Your task to perform on an android device: Open Maps and search for coffee Image 0: 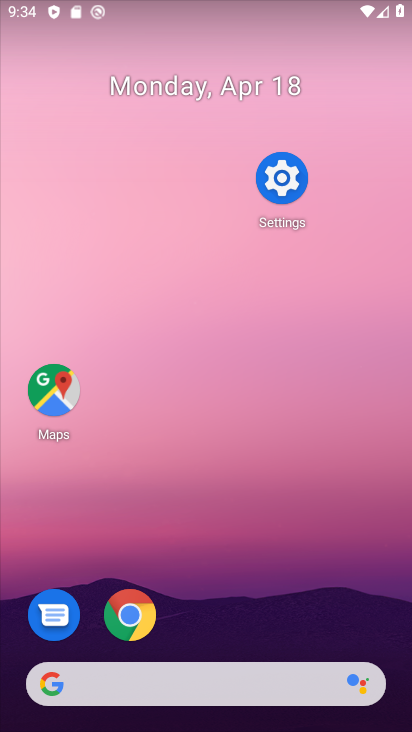
Step 0: click (57, 390)
Your task to perform on an android device: Open Maps and search for coffee Image 1: 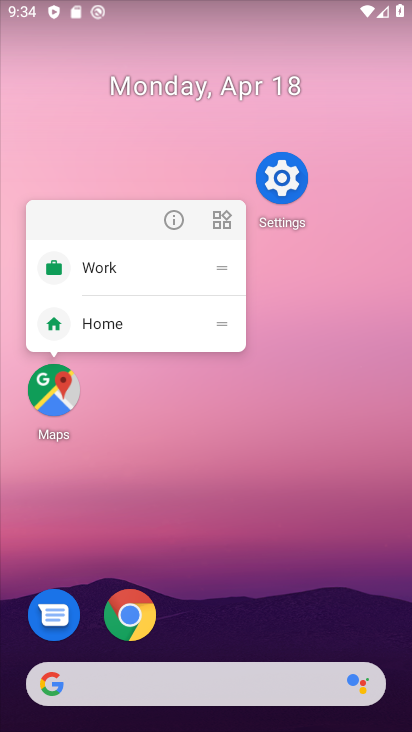
Step 1: click (57, 390)
Your task to perform on an android device: Open Maps and search for coffee Image 2: 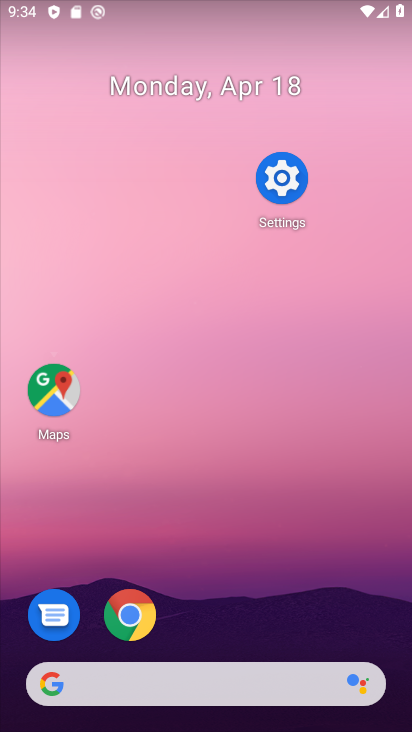
Step 2: click (57, 390)
Your task to perform on an android device: Open Maps and search for coffee Image 3: 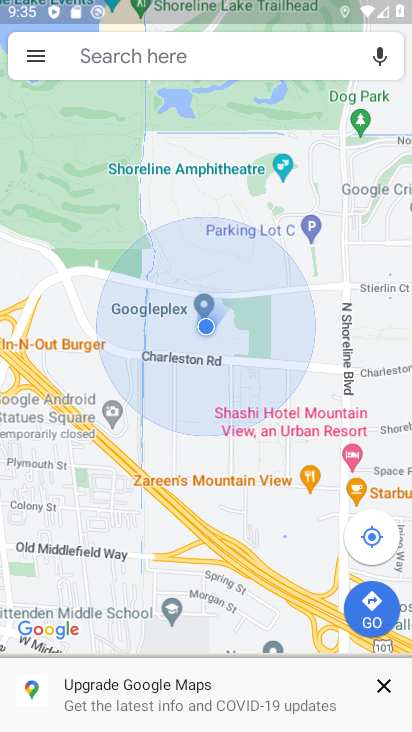
Step 3: click (84, 50)
Your task to perform on an android device: Open Maps and search for coffee Image 4: 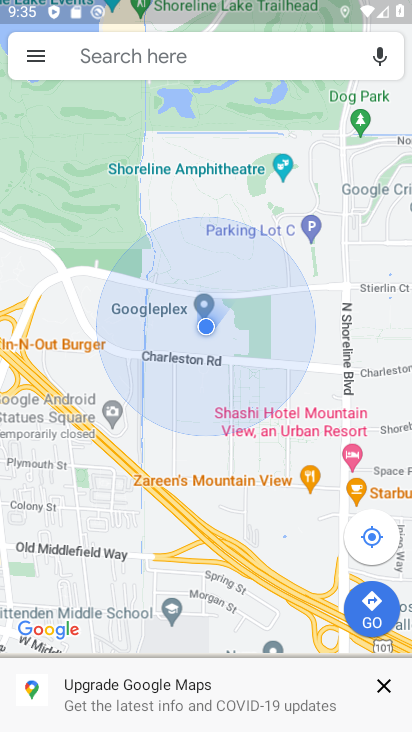
Step 4: click (90, 54)
Your task to perform on an android device: Open Maps and search for coffee Image 5: 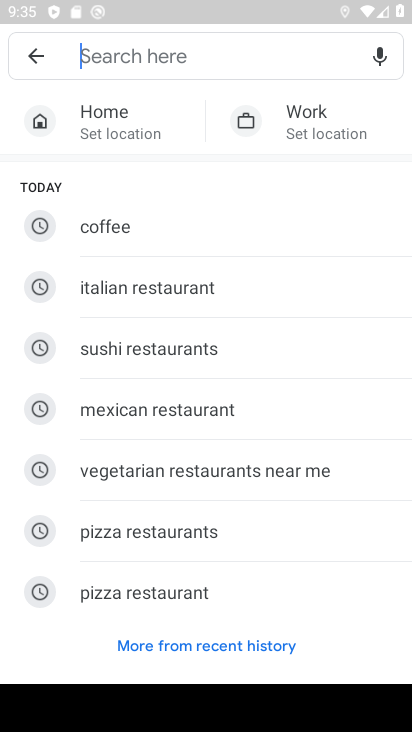
Step 5: click (111, 219)
Your task to perform on an android device: Open Maps and search for coffee Image 6: 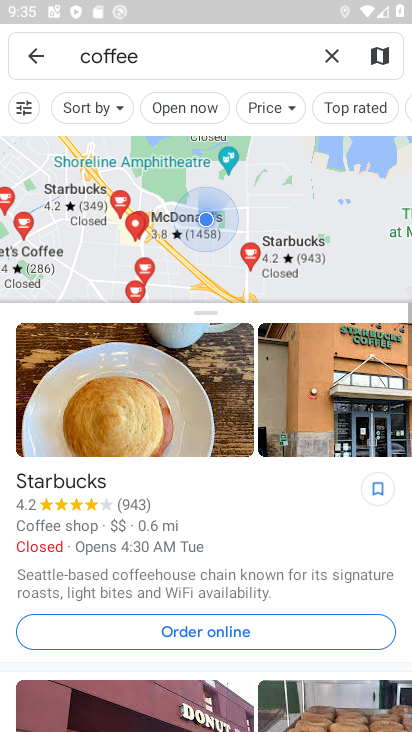
Step 6: task complete